Your task to perform on an android device: Add razer blade to the cart on amazon Image 0: 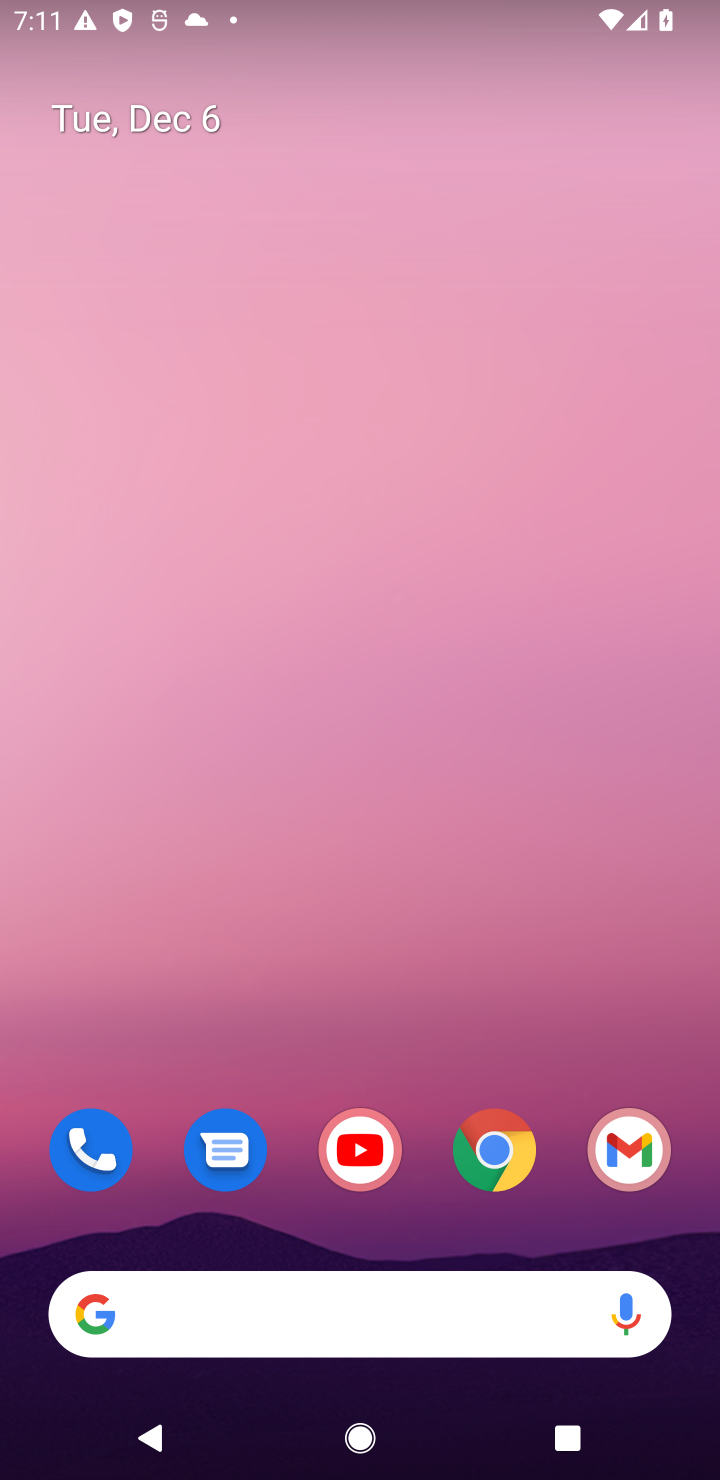
Step 0: click (492, 1149)
Your task to perform on an android device: Add razer blade to the cart on amazon Image 1: 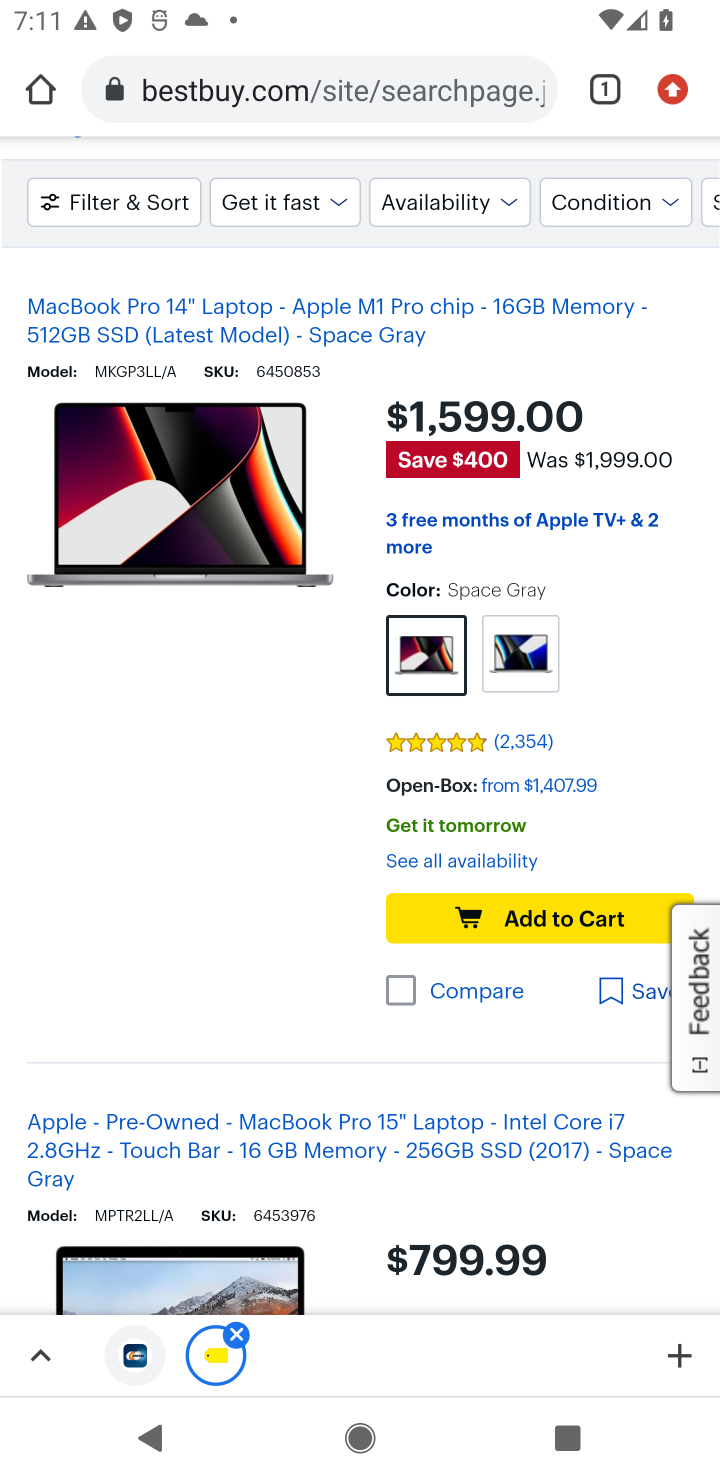
Step 1: click (331, 104)
Your task to perform on an android device: Add razer blade to the cart on amazon Image 2: 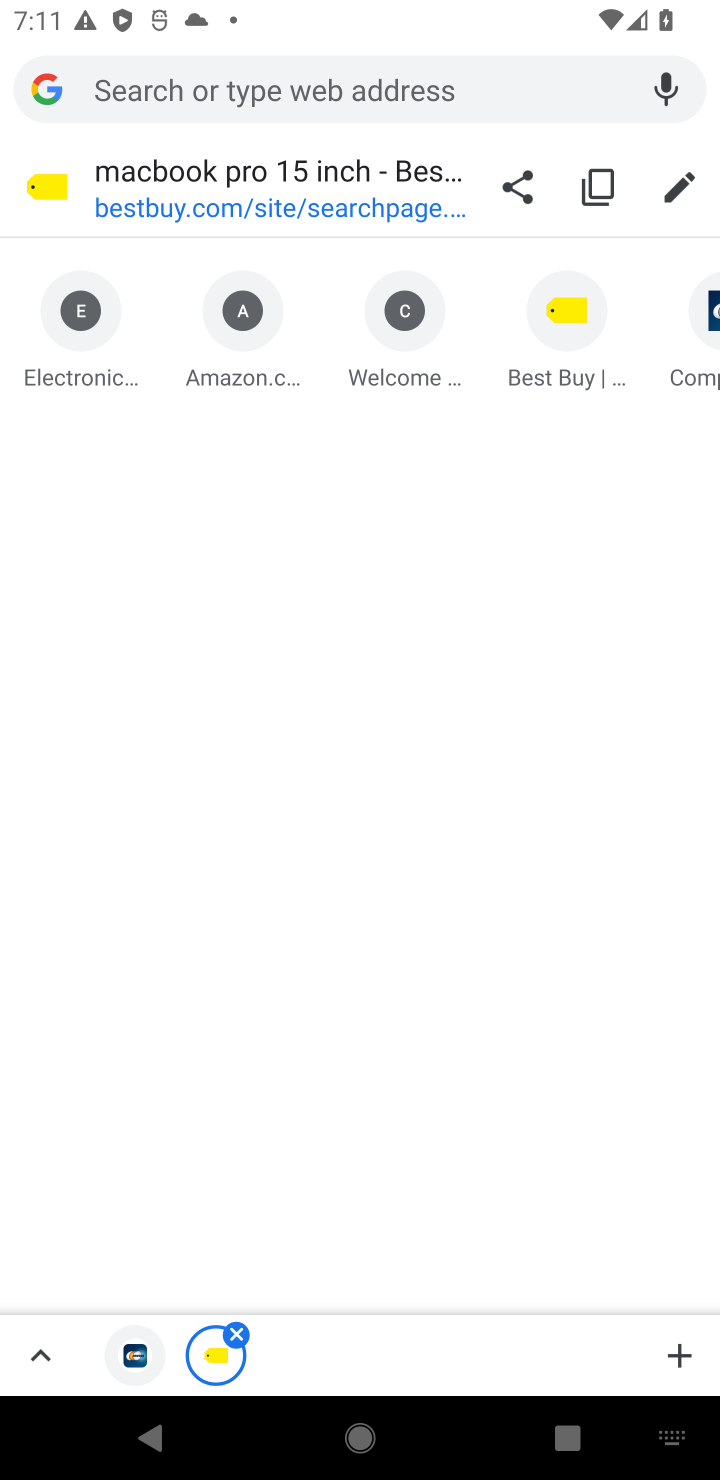
Step 2: click (240, 341)
Your task to perform on an android device: Add razer blade to the cart on amazon Image 3: 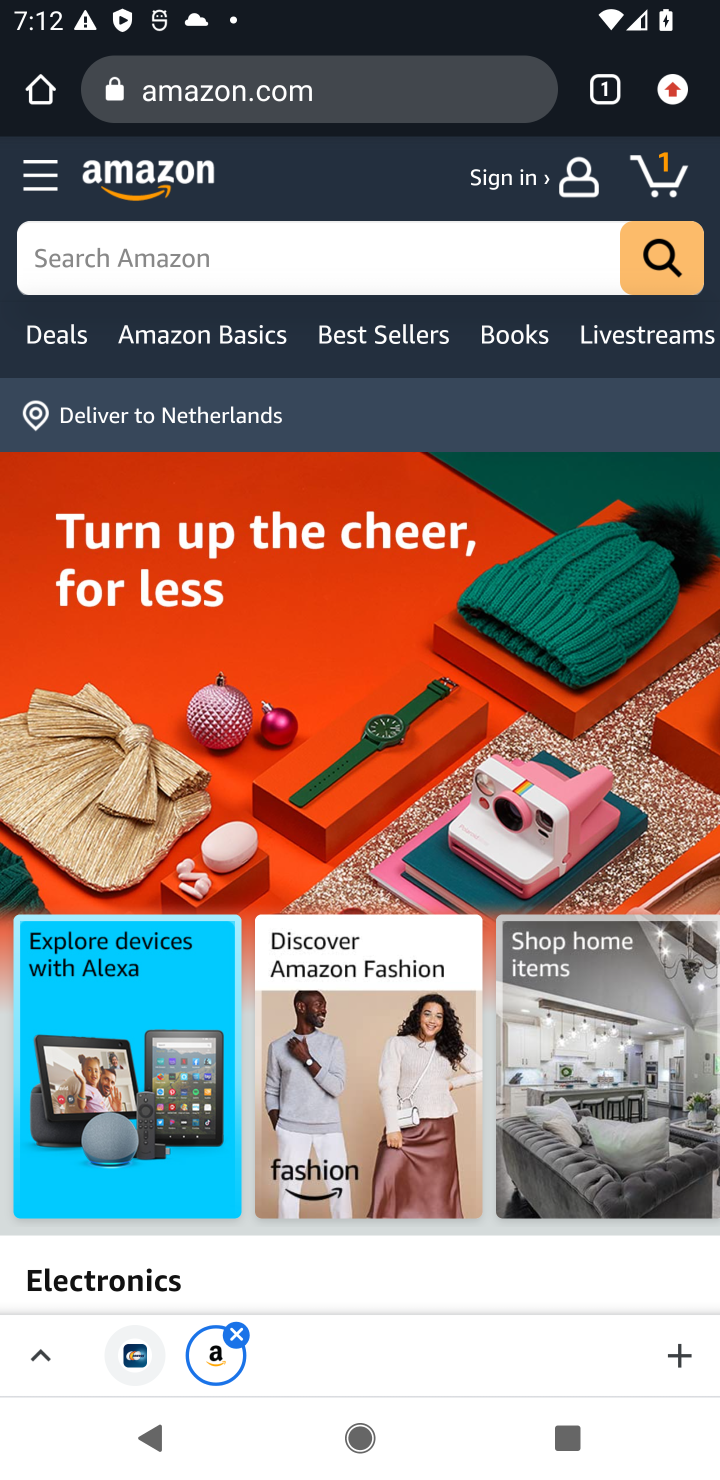
Step 3: click (134, 258)
Your task to perform on an android device: Add razer blade to the cart on amazon Image 4: 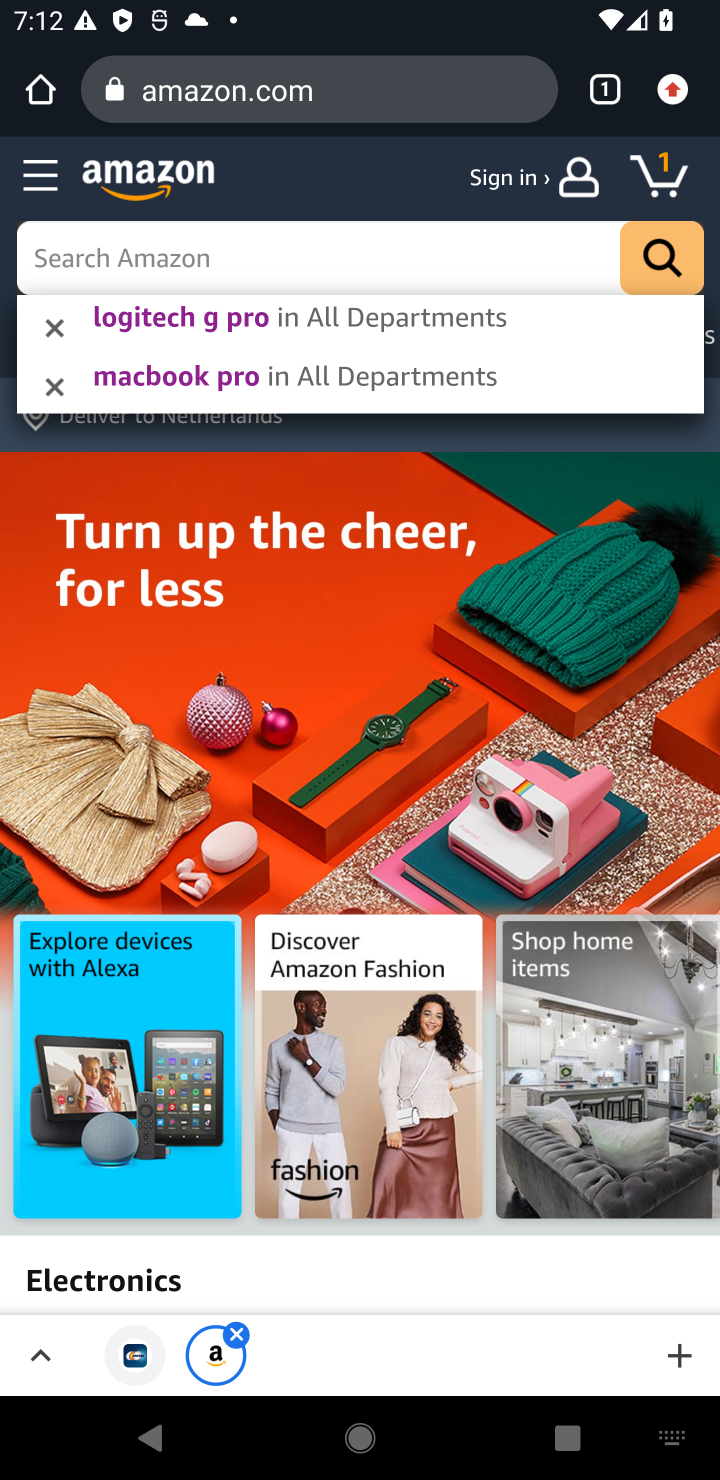
Step 4: type "razer blade"
Your task to perform on an android device: Add razer blade to the cart on amazon Image 5: 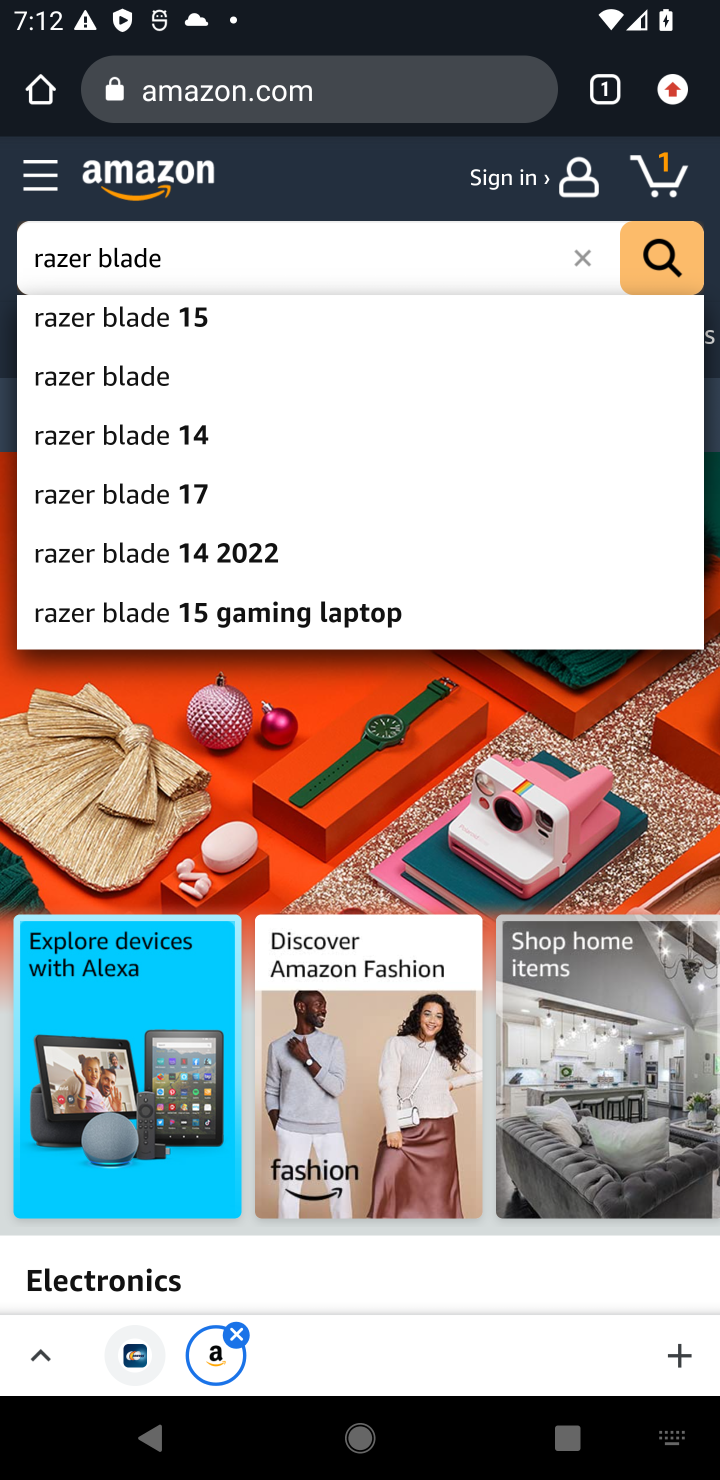
Step 5: click (106, 384)
Your task to perform on an android device: Add razer blade to the cart on amazon Image 6: 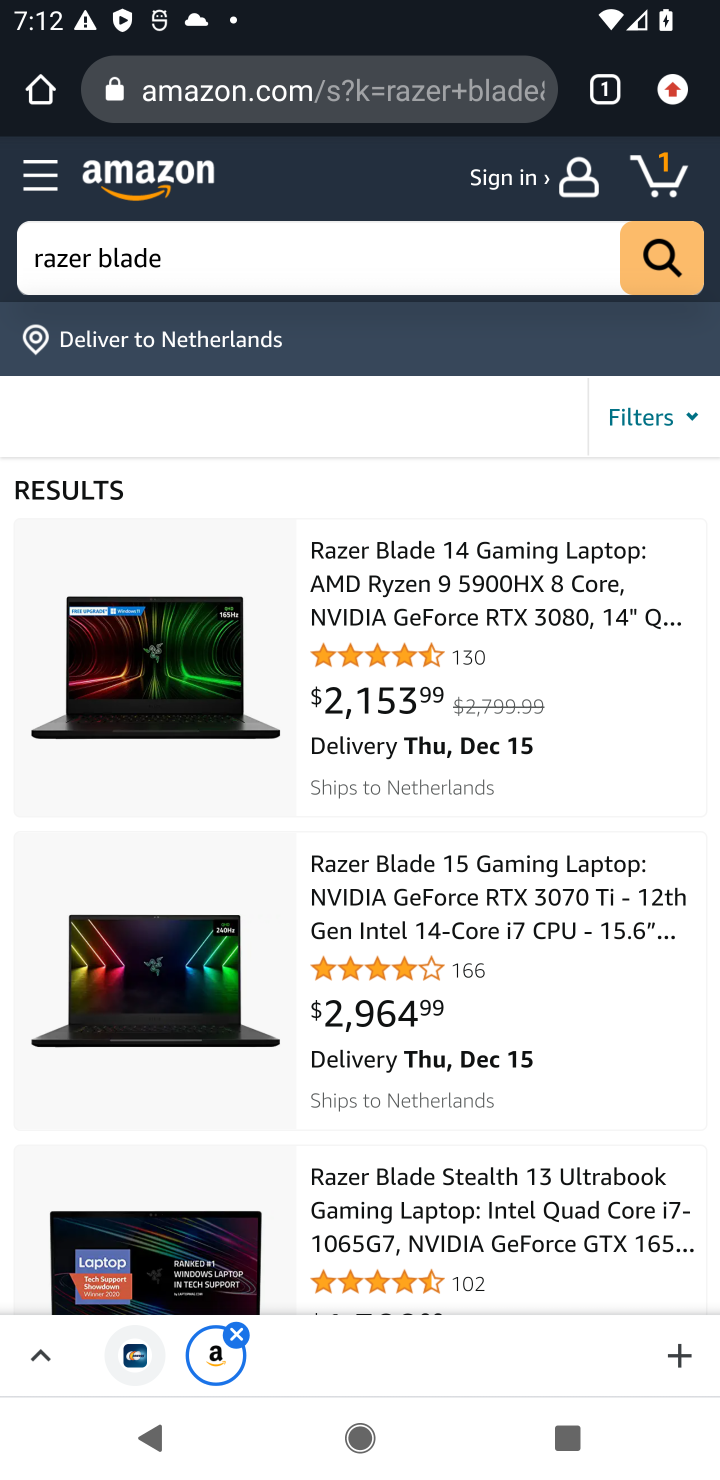
Step 6: click (405, 584)
Your task to perform on an android device: Add razer blade to the cart on amazon Image 7: 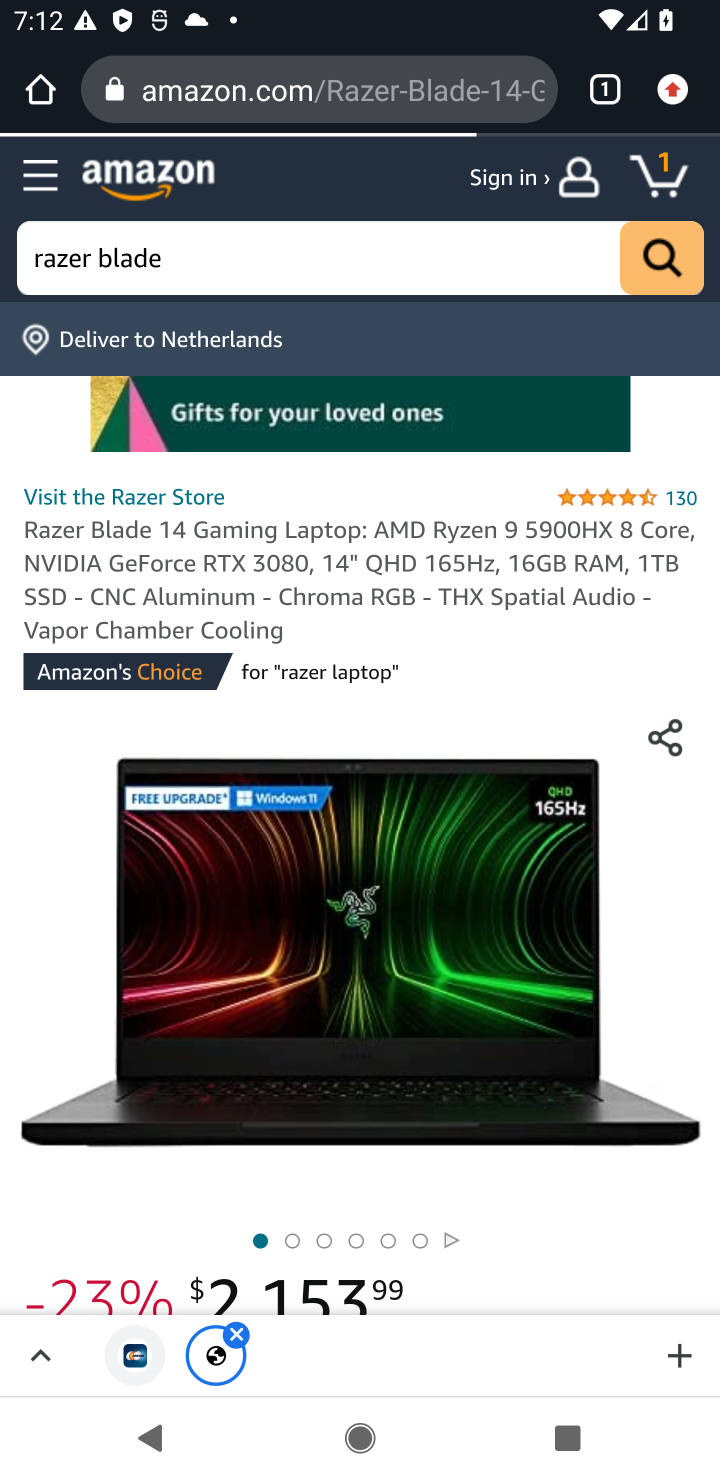
Step 7: drag from (672, 1038) to (636, 286)
Your task to perform on an android device: Add razer blade to the cart on amazon Image 8: 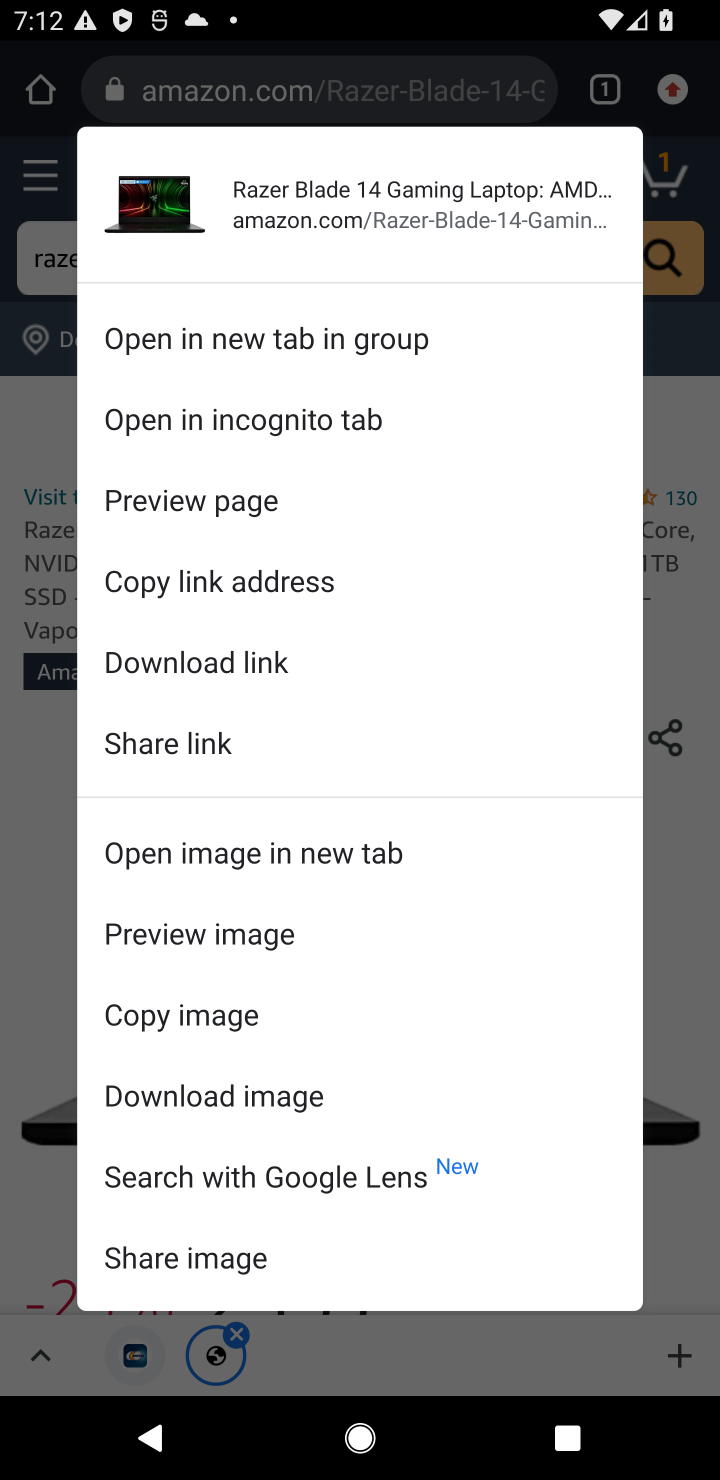
Step 8: click (672, 903)
Your task to perform on an android device: Add razer blade to the cart on amazon Image 9: 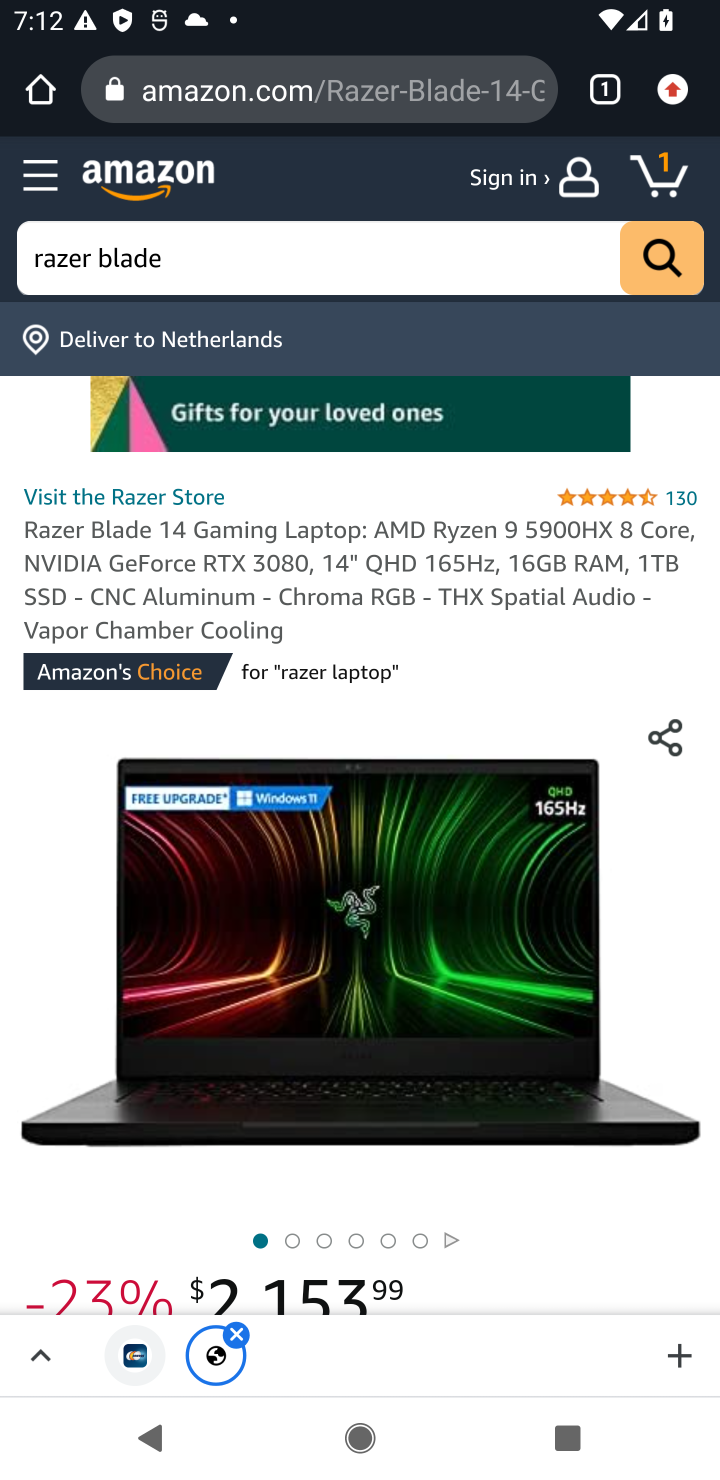
Step 9: drag from (644, 995) to (534, 361)
Your task to perform on an android device: Add razer blade to the cart on amazon Image 10: 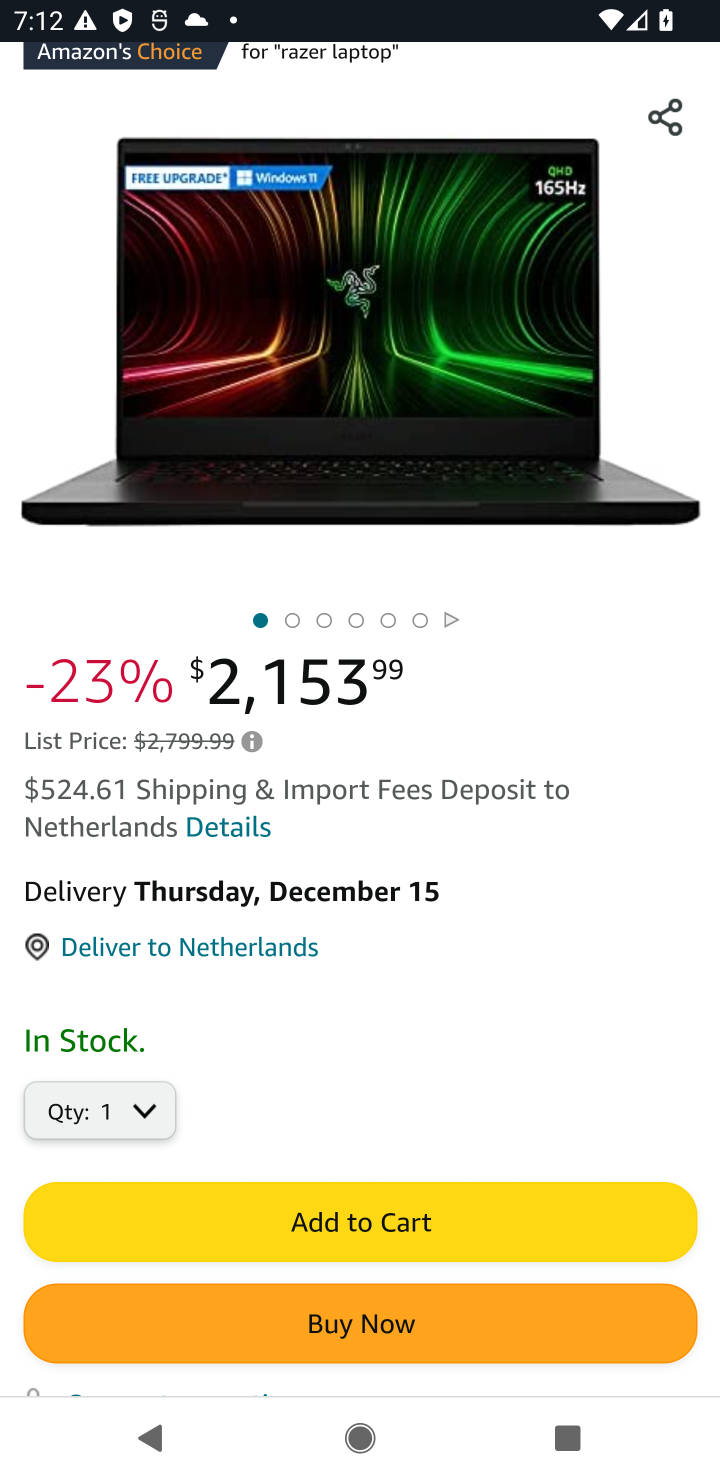
Step 10: click (410, 1209)
Your task to perform on an android device: Add razer blade to the cart on amazon Image 11: 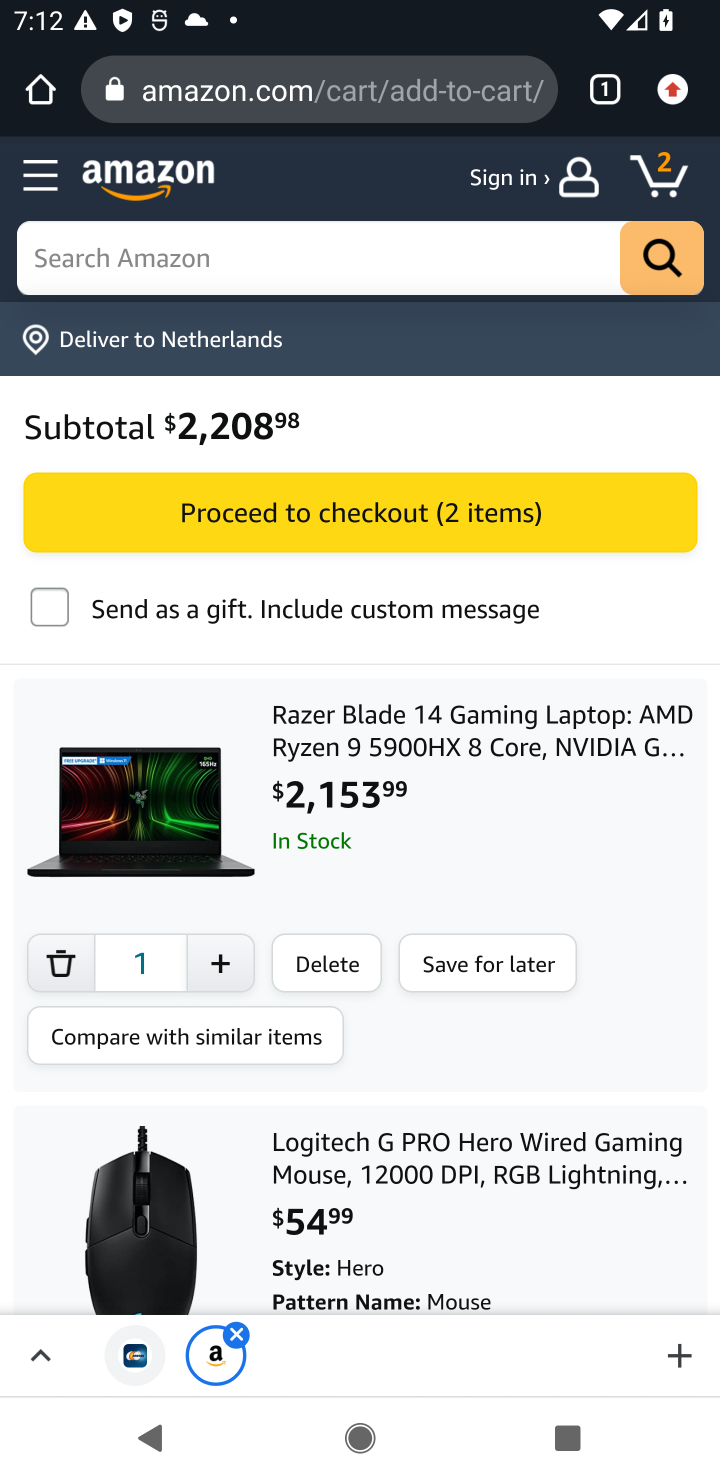
Step 11: task complete